Your task to perform on an android device: What is the news today? Image 0: 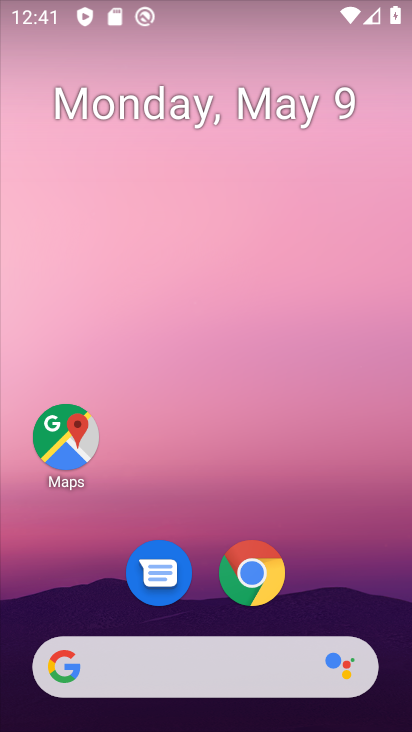
Step 0: click (255, 585)
Your task to perform on an android device: What is the news today? Image 1: 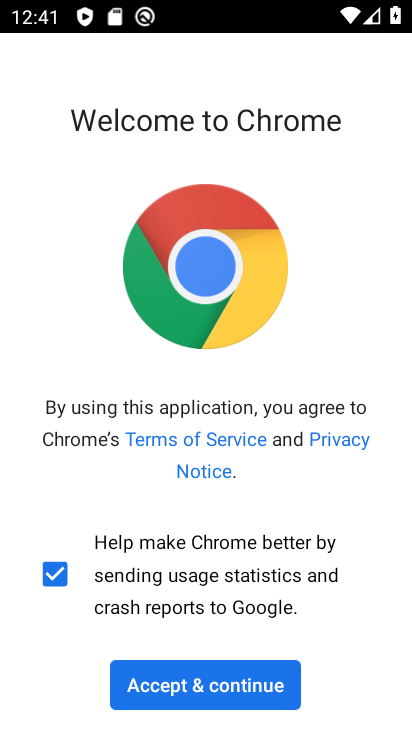
Step 1: click (232, 679)
Your task to perform on an android device: What is the news today? Image 2: 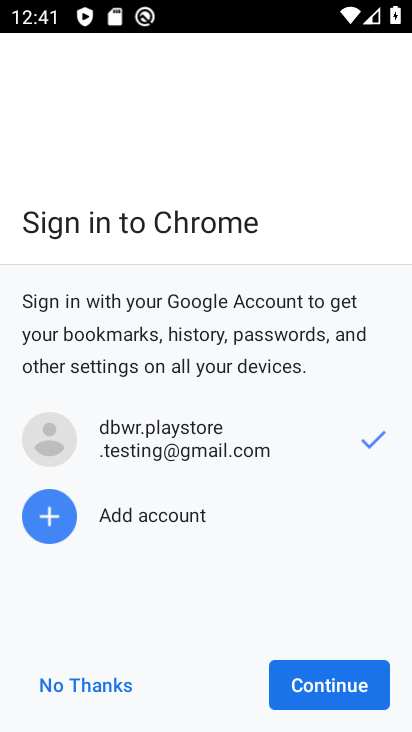
Step 2: click (232, 679)
Your task to perform on an android device: What is the news today? Image 3: 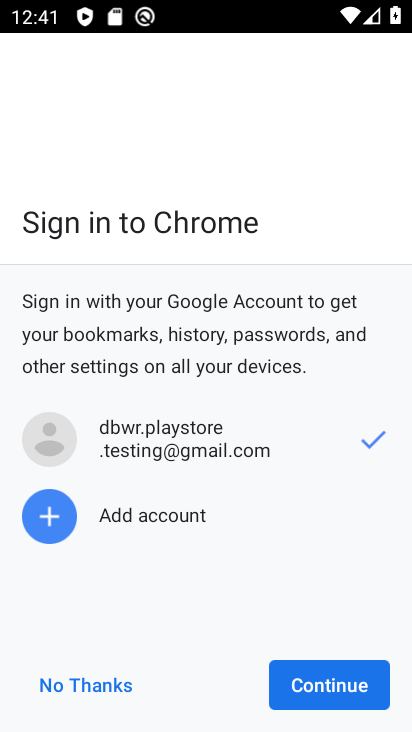
Step 3: click (308, 680)
Your task to perform on an android device: What is the news today? Image 4: 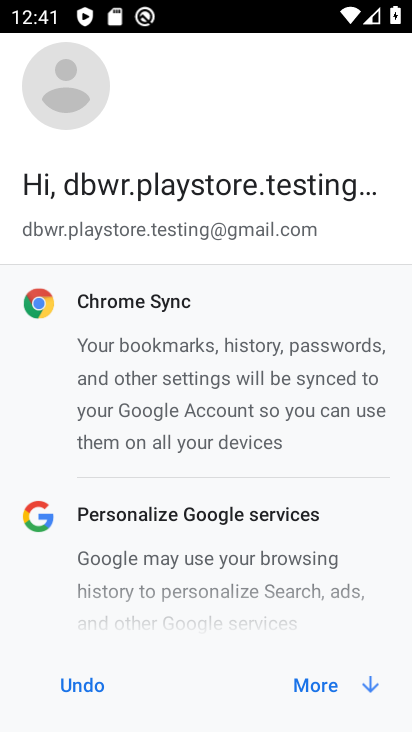
Step 4: click (308, 680)
Your task to perform on an android device: What is the news today? Image 5: 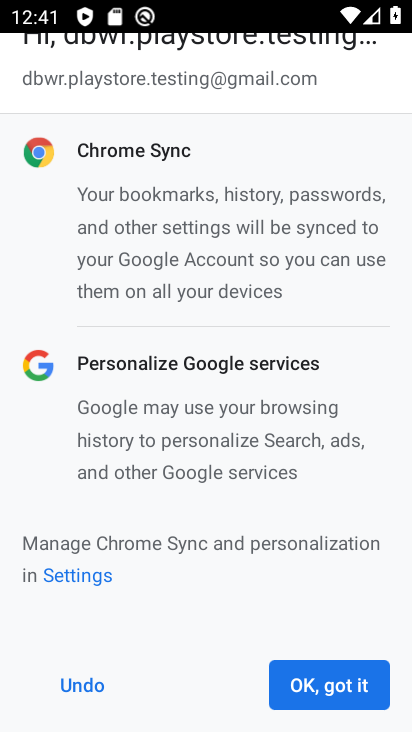
Step 5: click (308, 680)
Your task to perform on an android device: What is the news today? Image 6: 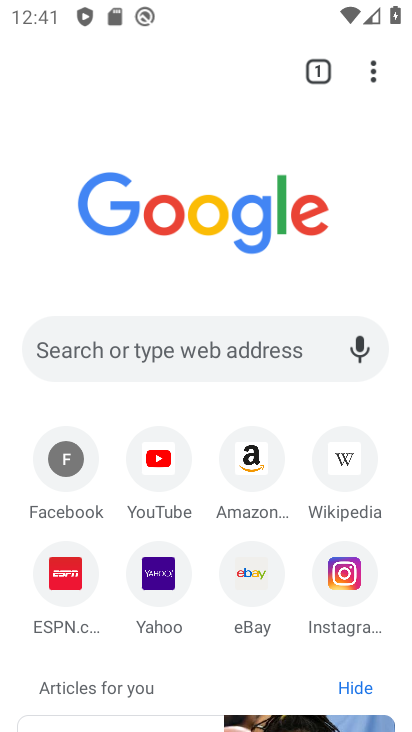
Step 6: click (181, 349)
Your task to perform on an android device: What is the news today? Image 7: 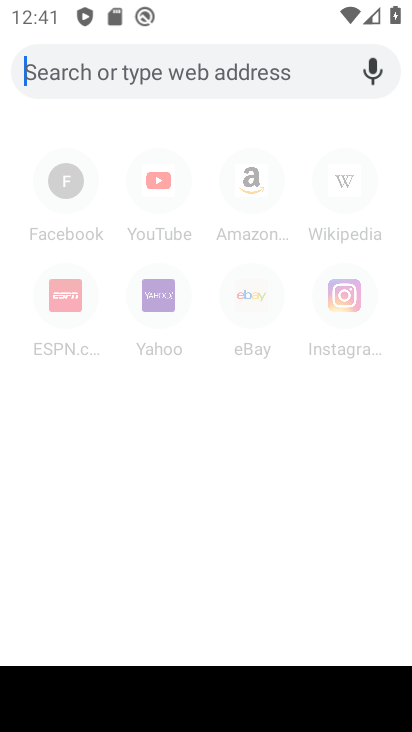
Step 7: type "what is the news today"
Your task to perform on an android device: What is the news today? Image 8: 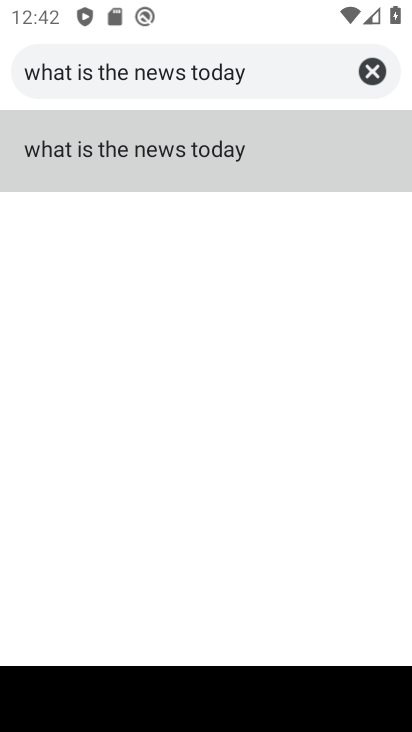
Step 8: click (199, 152)
Your task to perform on an android device: What is the news today? Image 9: 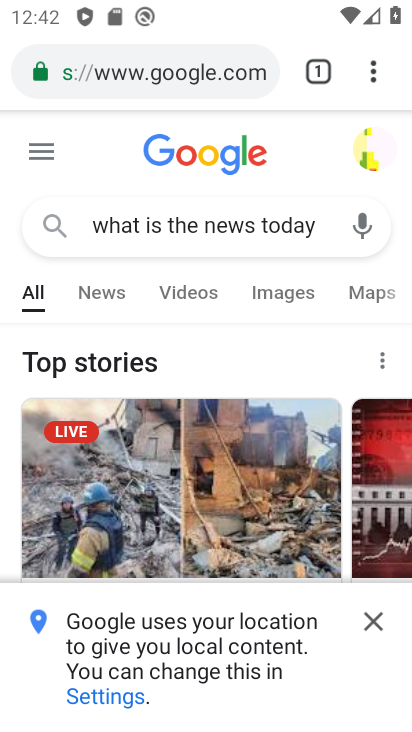
Step 9: drag from (244, 526) to (212, 200)
Your task to perform on an android device: What is the news today? Image 10: 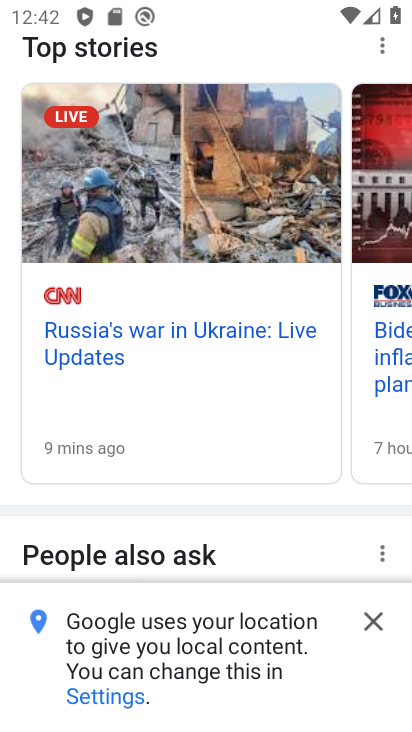
Step 10: drag from (266, 544) to (228, 171)
Your task to perform on an android device: What is the news today? Image 11: 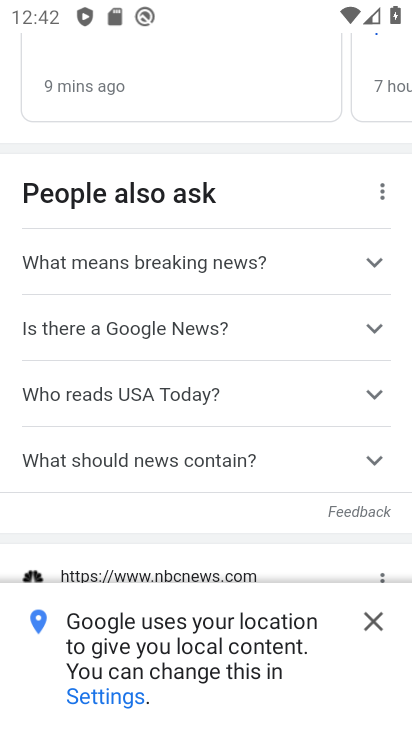
Step 11: drag from (222, 147) to (229, 479)
Your task to perform on an android device: What is the news today? Image 12: 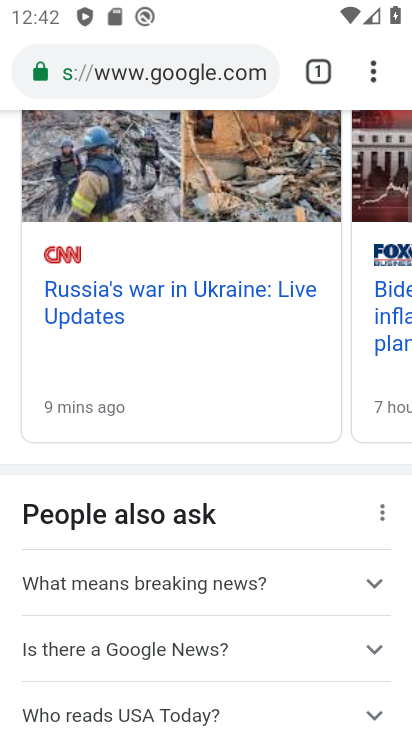
Step 12: drag from (208, 204) to (199, 457)
Your task to perform on an android device: What is the news today? Image 13: 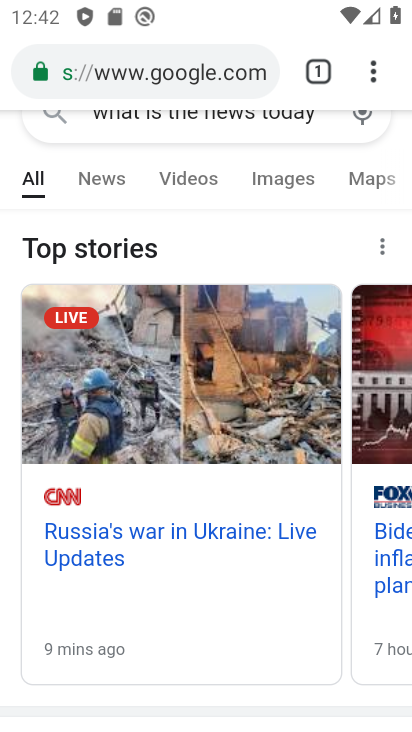
Step 13: click (93, 176)
Your task to perform on an android device: What is the news today? Image 14: 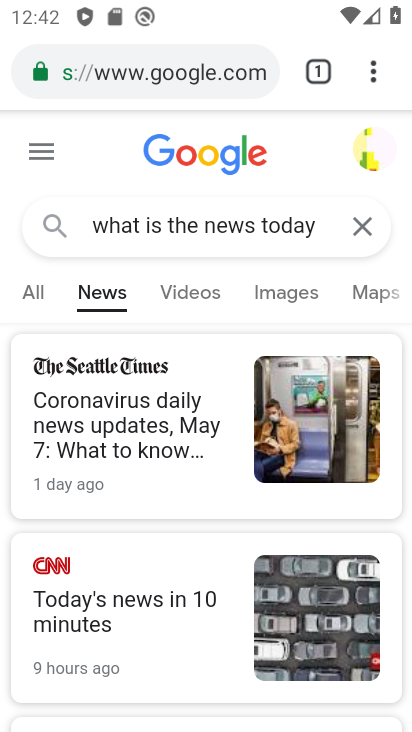
Step 14: task complete